Your task to perform on an android device: delete the emails in spam in the gmail app Image 0: 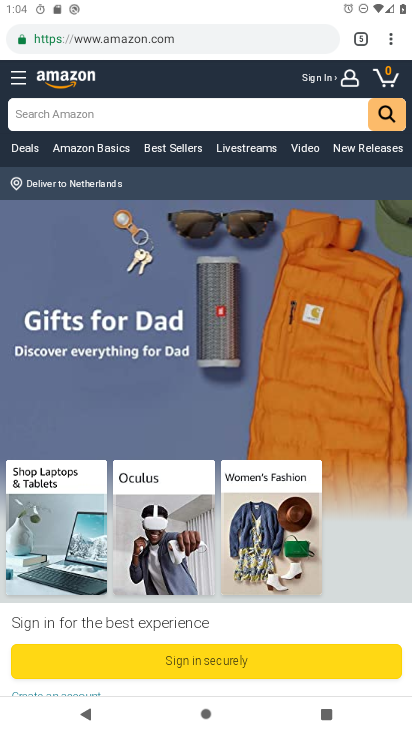
Step 0: press home button
Your task to perform on an android device: delete the emails in spam in the gmail app Image 1: 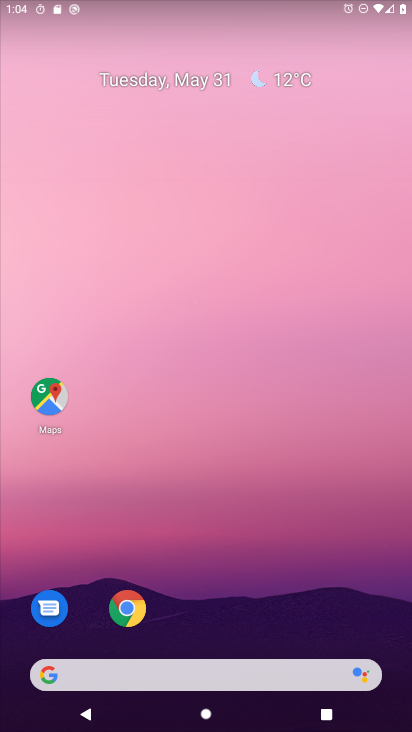
Step 1: drag from (234, 624) to (229, 36)
Your task to perform on an android device: delete the emails in spam in the gmail app Image 2: 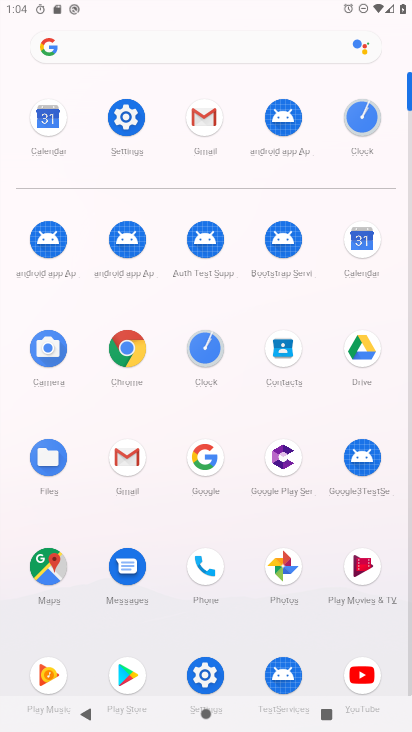
Step 2: click (196, 130)
Your task to perform on an android device: delete the emails in spam in the gmail app Image 3: 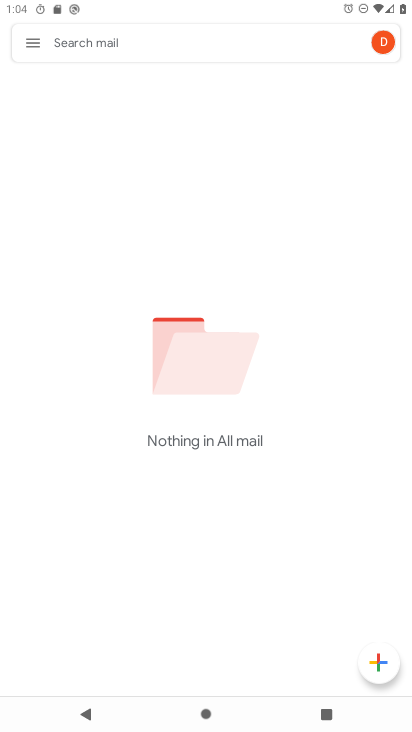
Step 3: click (30, 43)
Your task to perform on an android device: delete the emails in spam in the gmail app Image 4: 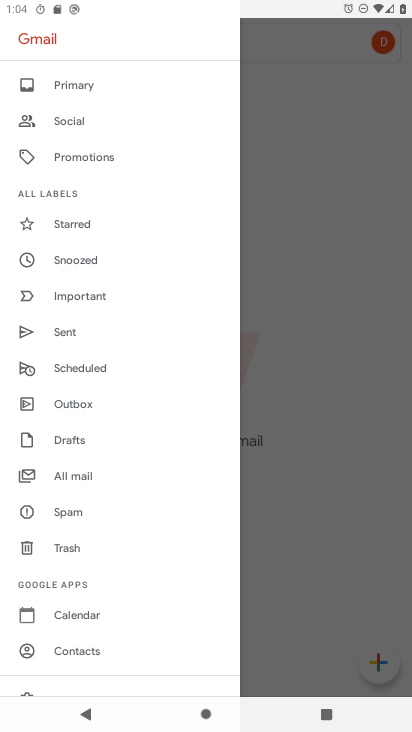
Step 4: click (66, 515)
Your task to perform on an android device: delete the emails in spam in the gmail app Image 5: 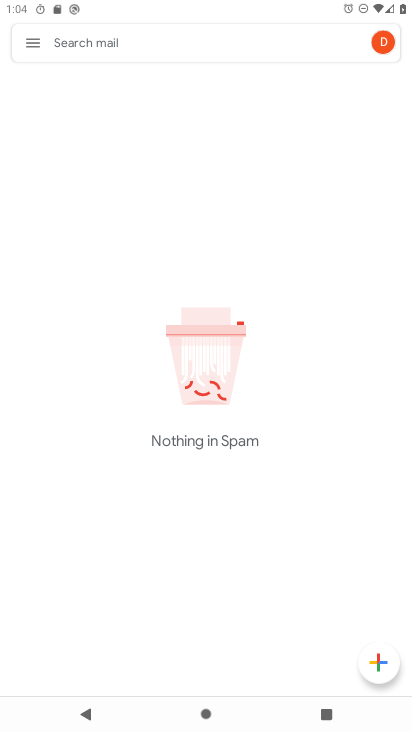
Step 5: task complete